Your task to perform on an android device: Go to Yahoo.com Image 0: 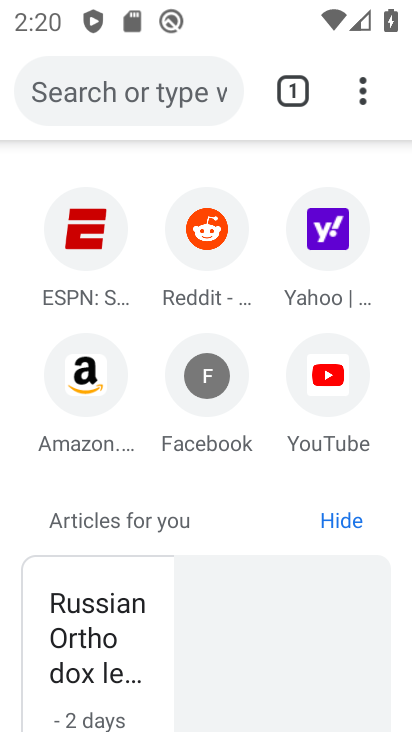
Step 0: press home button
Your task to perform on an android device: Go to Yahoo.com Image 1: 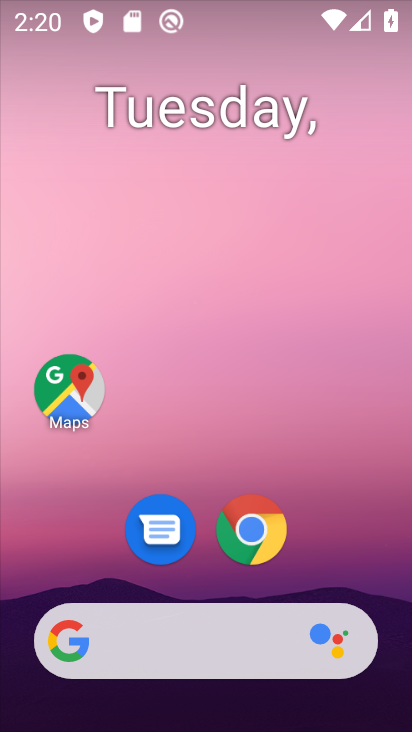
Step 1: drag from (387, 627) to (295, 64)
Your task to perform on an android device: Go to Yahoo.com Image 2: 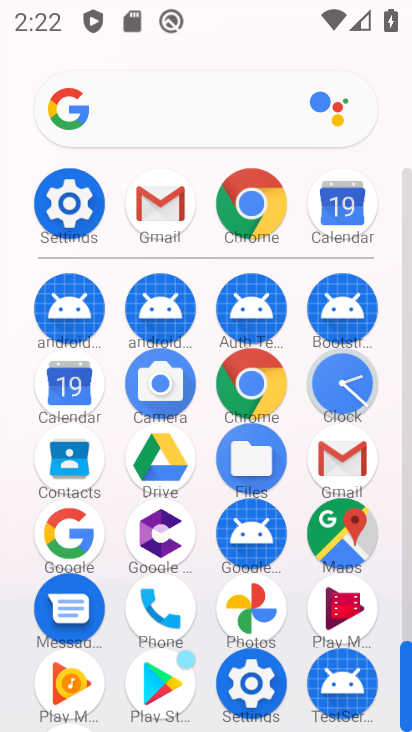
Step 2: click (245, 220)
Your task to perform on an android device: Go to Yahoo.com Image 3: 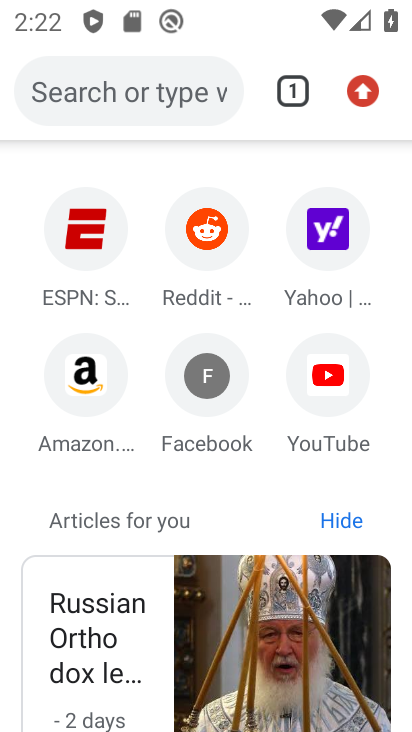
Step 3: click (303, 242)
Your task to perform on an android device: Go to Yahoo.com Image 4: 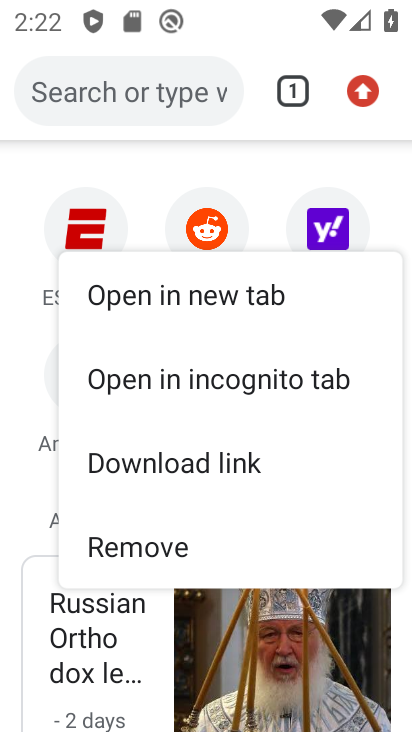
Step 4: click (304, 224)
Your task to perform on an android device: Go to Yahoo.com Image 5: 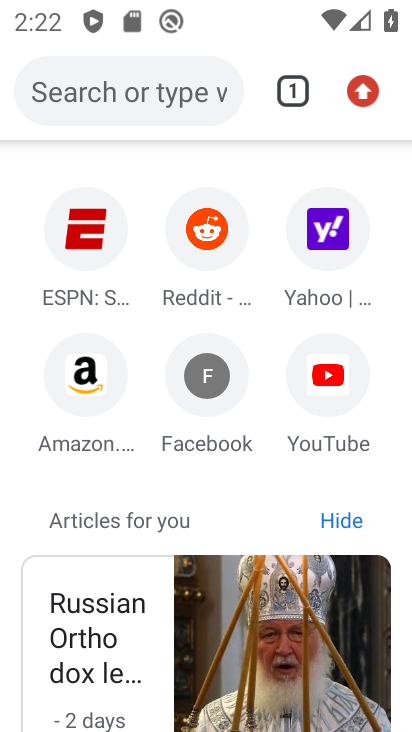
Step 5: click (323, 223)
Your task to perform on an android device: Go to Yahoo.com Image 6: 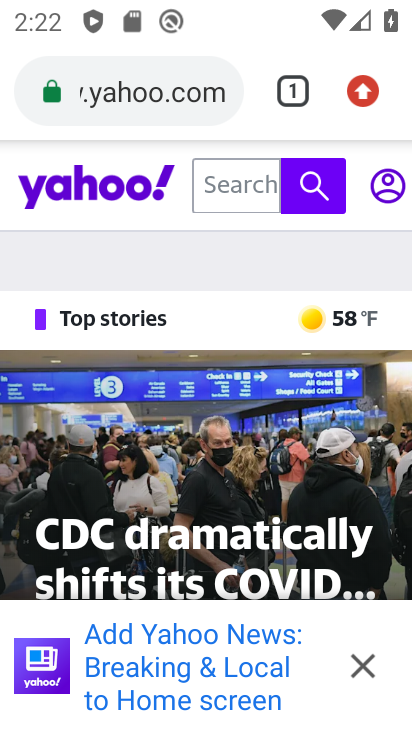
Step 6: task complete